Your task to perform on an android device: Clear the cart on ebay. Search for "macbook" on ebay, select the first entry, and add it to the cart. Image 0: 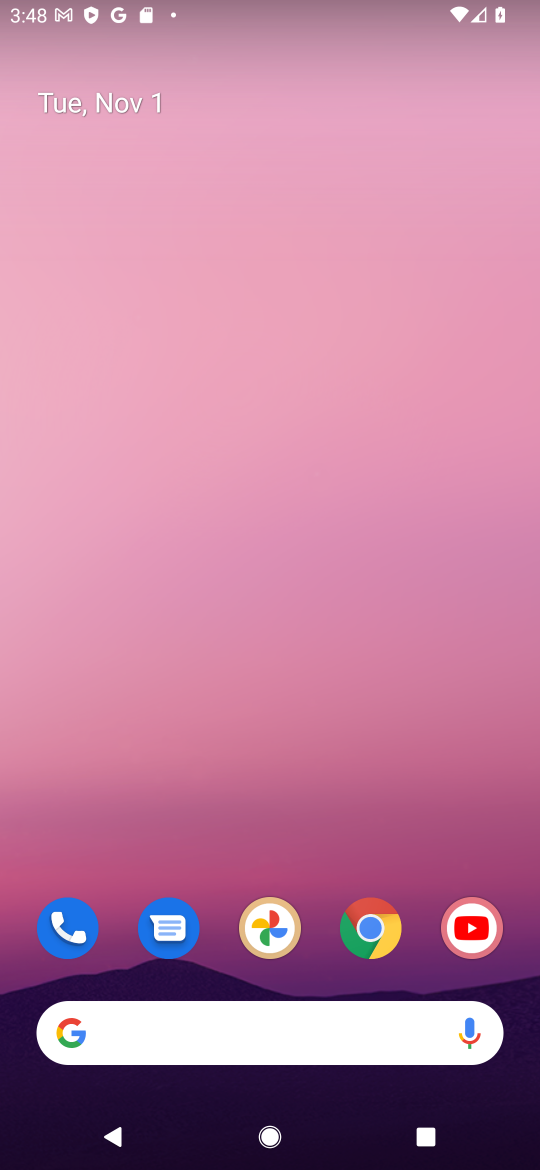
Step 0: click (371, 936)
Your task to perform on an android device: Clear the cart on ebay. Search for "macbook" on ebay, select the first entry, and add it to the cart. Image 1: 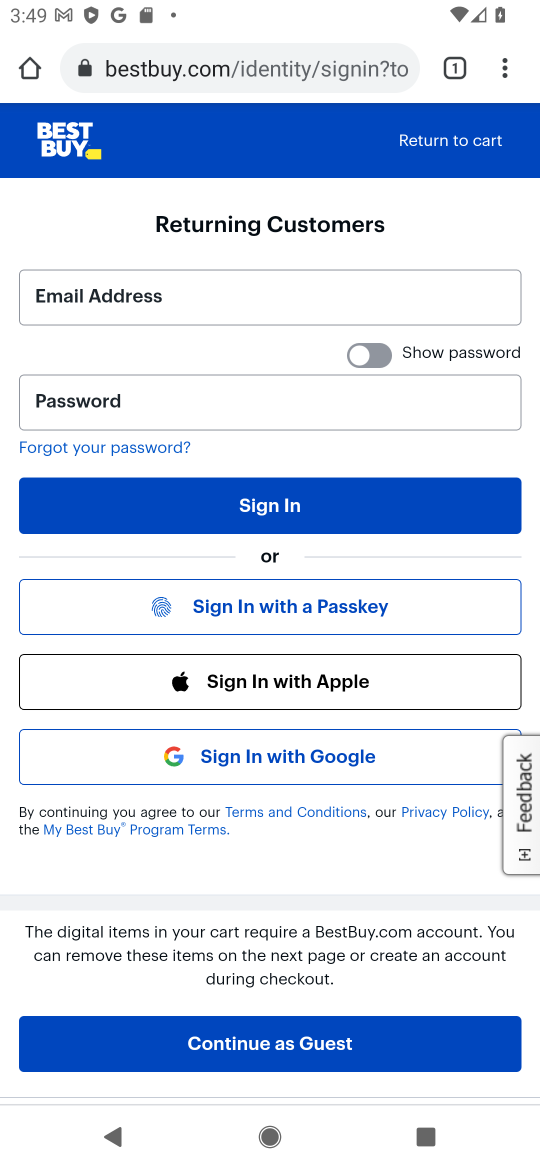
Step 1: click (298, 60)
Your task to perform on an android device: Clear the cart on ebay. Search for "macbook" on ebay, select the first entry, and add it to the cart. Image 2: 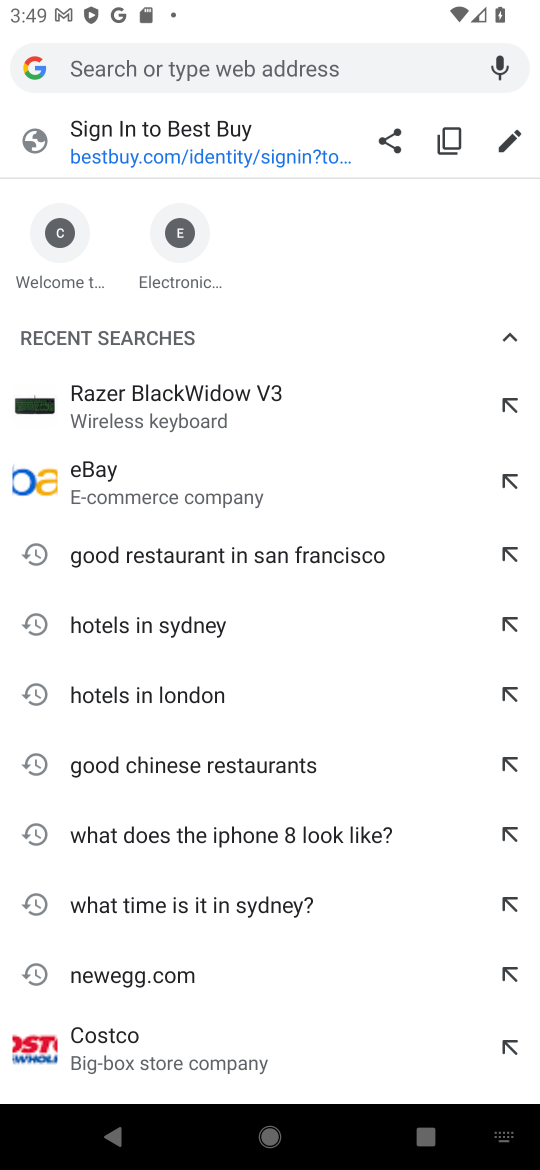
Step 2: type "ebay"
Your task to perform on an android device: Clear the cart on ebay. Search for "macbook" on ebay, select the first entry, and add it to the cart. Image 3: 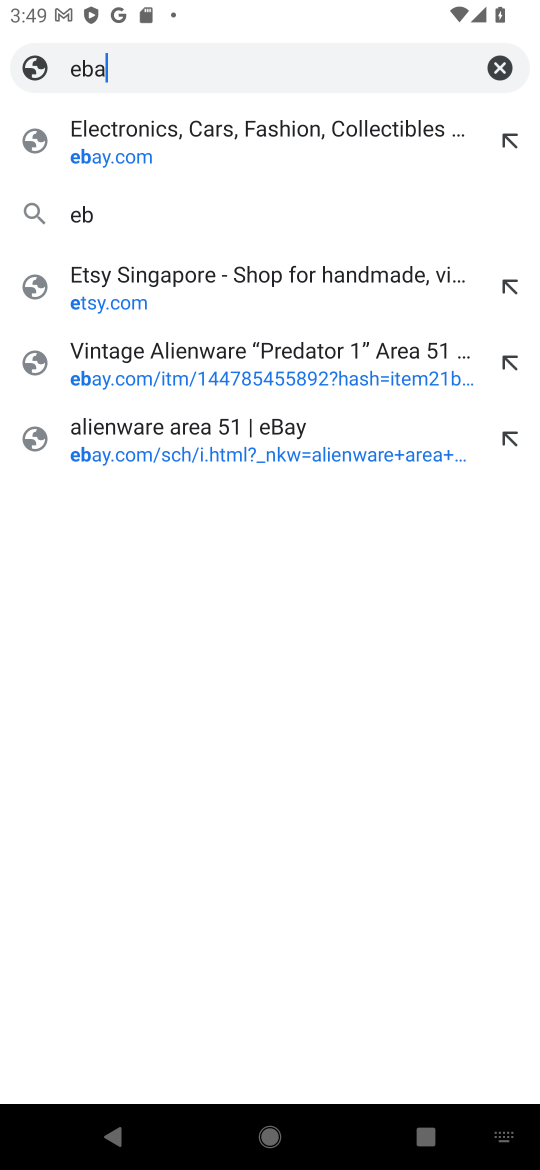
Step 3: type ""
Your task to perform on an android device: Clear the cart on ebay. Search for "macbook" on ebay, select the first entry, and add it to the cart. Image 4: 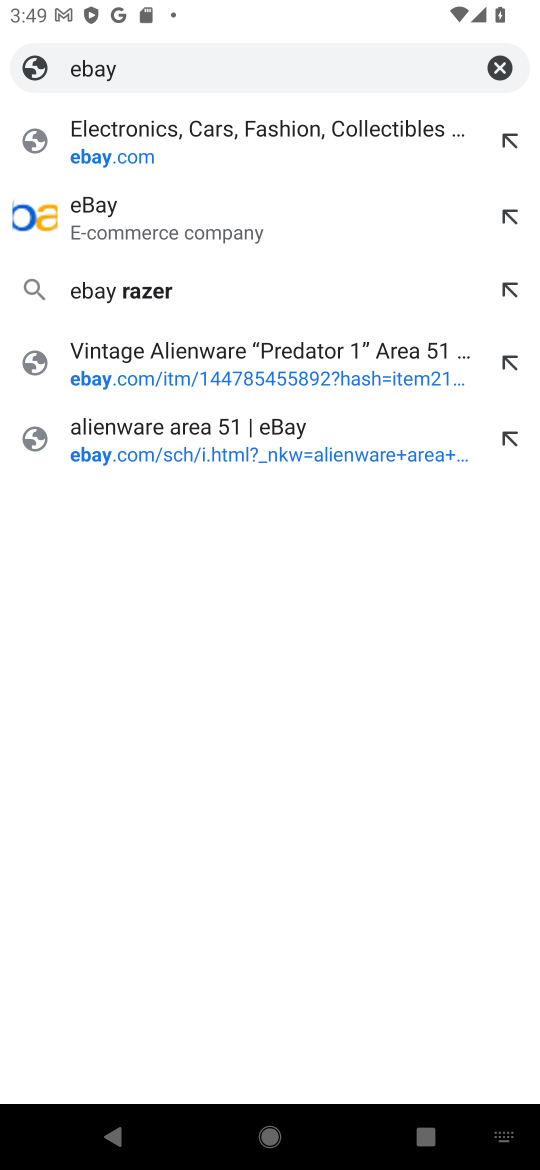
Step 4: press enter
Your task to perform on an android device: Clear the cart on ebay. Search for "macbook" on ebay, select the first entry, and add it to the cart. Image 5: 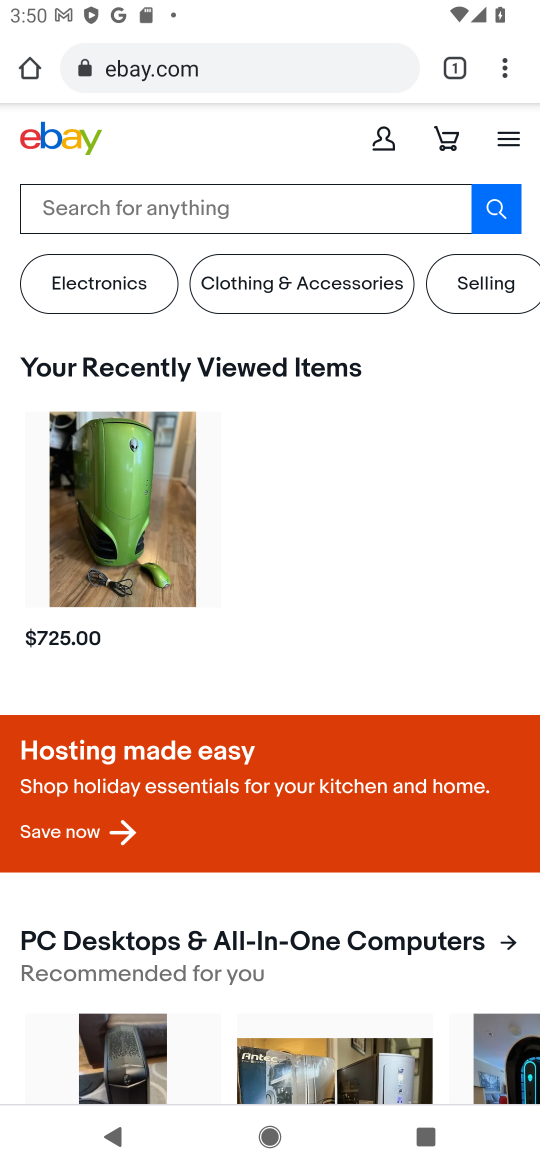
Step 5: click (268, 205)
Your task to perform on an android device: Clear the cart on ebay. Search for "macbook" on ebay, select the first entry, and add it to the cart. Image 6: 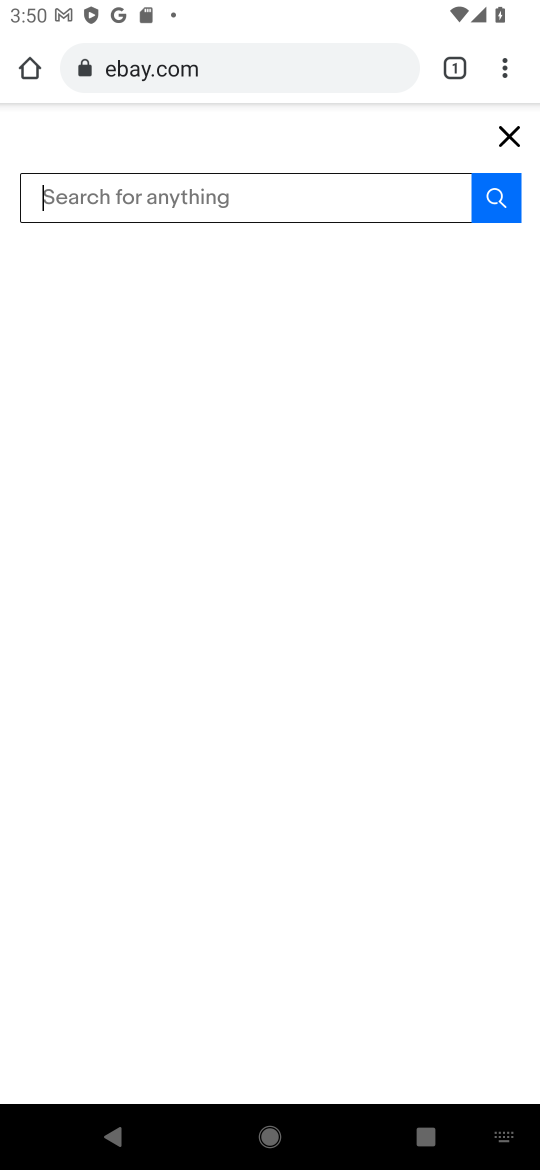
Step 6: click (513, 120)
Your task to perform on an android device: Clear the cart on ebay. Search for "macbook" on ebay, select the first entry, and add it to the cart. Image 7: 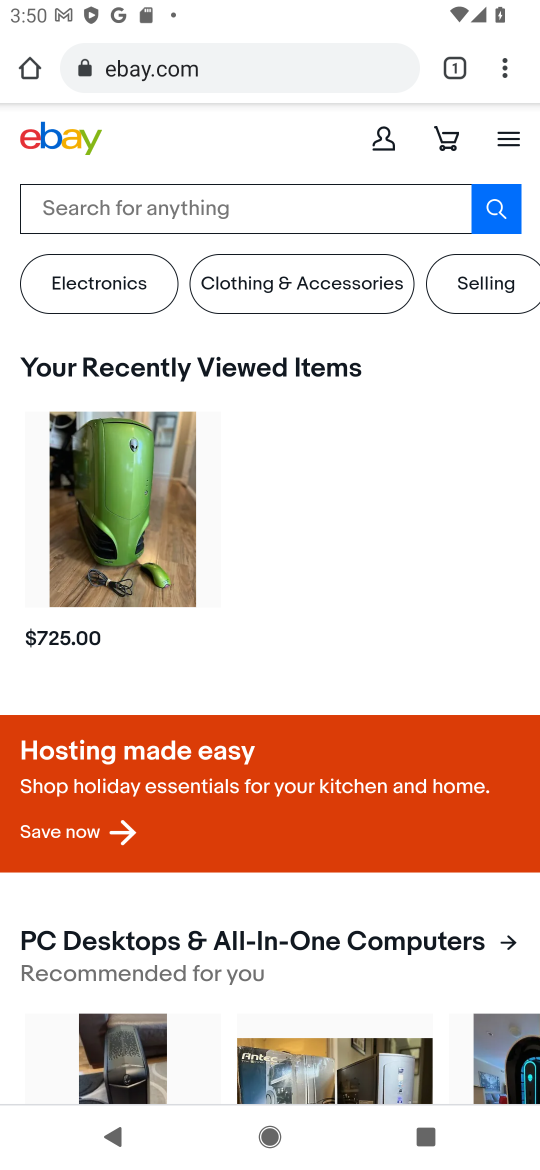
Step 7: click (439, 139)
Your task to perform on an android device: Clear the cart on ebay. Search for "macbook" on ebay, select the first entry, and add it to the cart. Image 8: 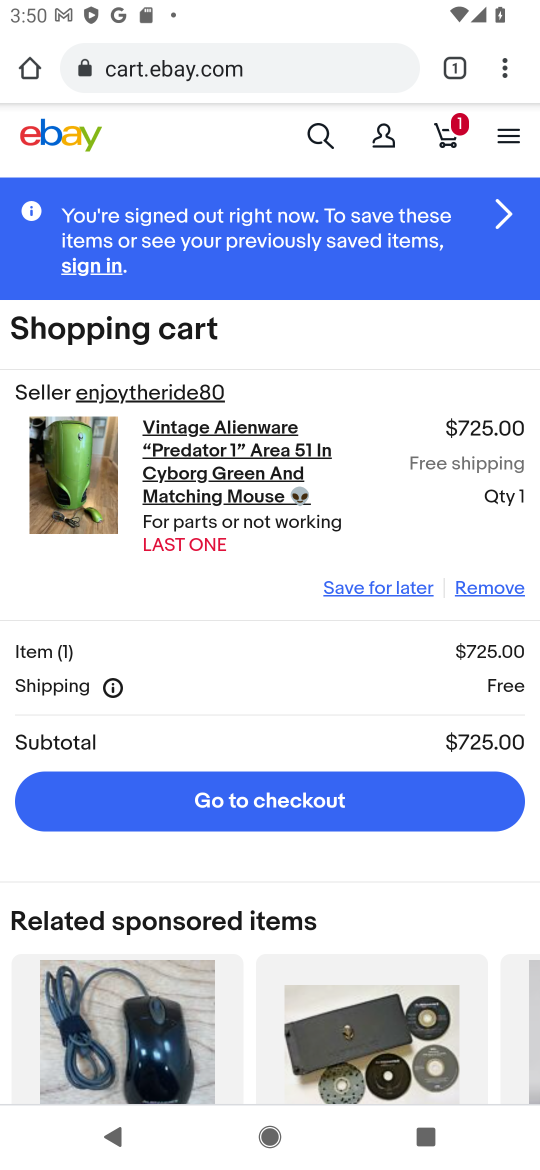
Step 8: click (494, 590)
Your task to perform on an android device: Clear the cart on ebay. Search for "macbook" on ebay, select the first entry, and add it to the cart. Image 9: 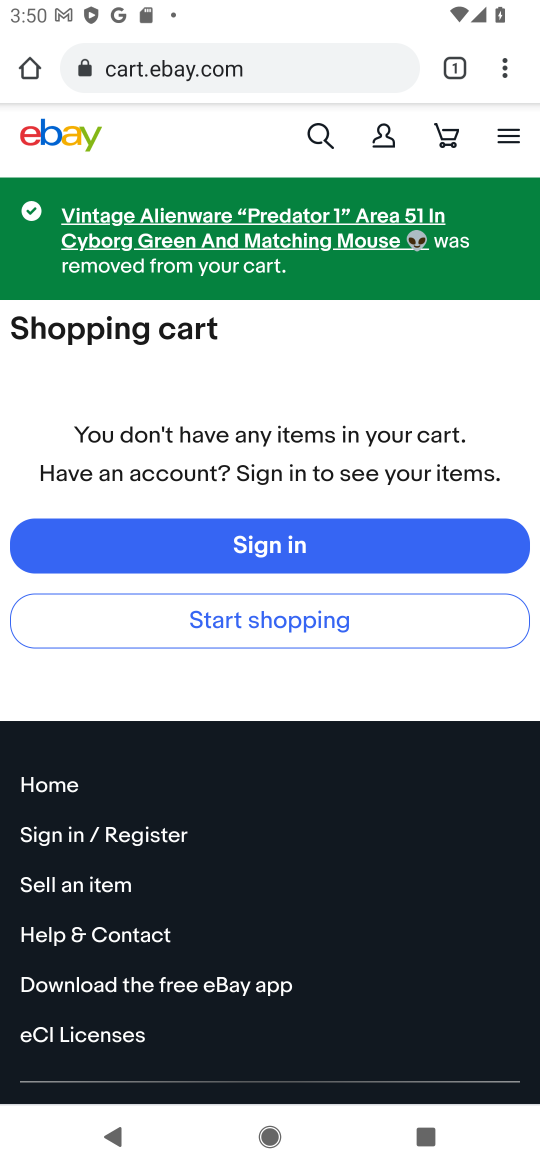
Step 9: click (312, 145)
Your task to perform on an android device: Clear the cart on ebay. Search for "macbook" on ebay, select the first entry, and add it to the cart. Image 10: 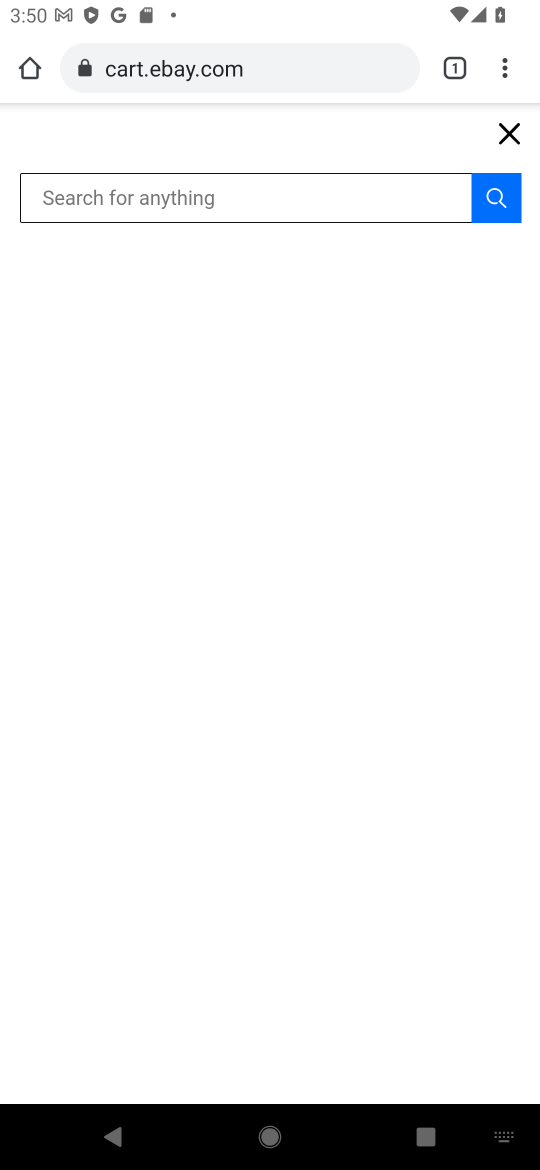
Step 10: type "macbook"
Your task to perform on an android device: Clear the cart on ebay. Search for "macbook" on ebay, select the first entry, and add it to the cart. Image 11: 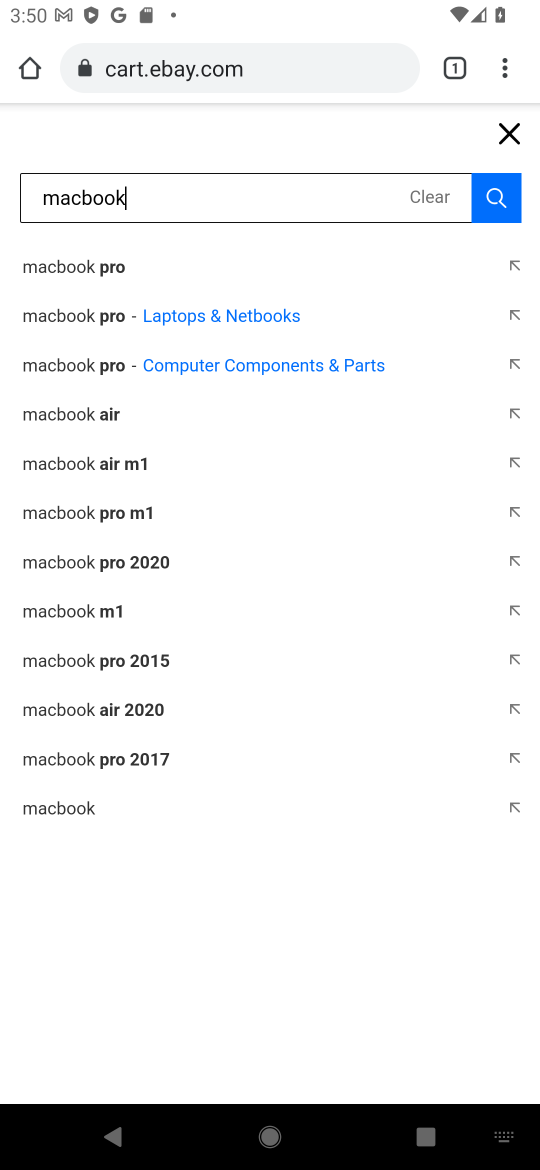
Step 11: click (498, 191)
Your task to perform on an android device: Clear the cart on ebay. Search for "macbook" on ebay, select the first entry, and add it to the cart. Image 12: 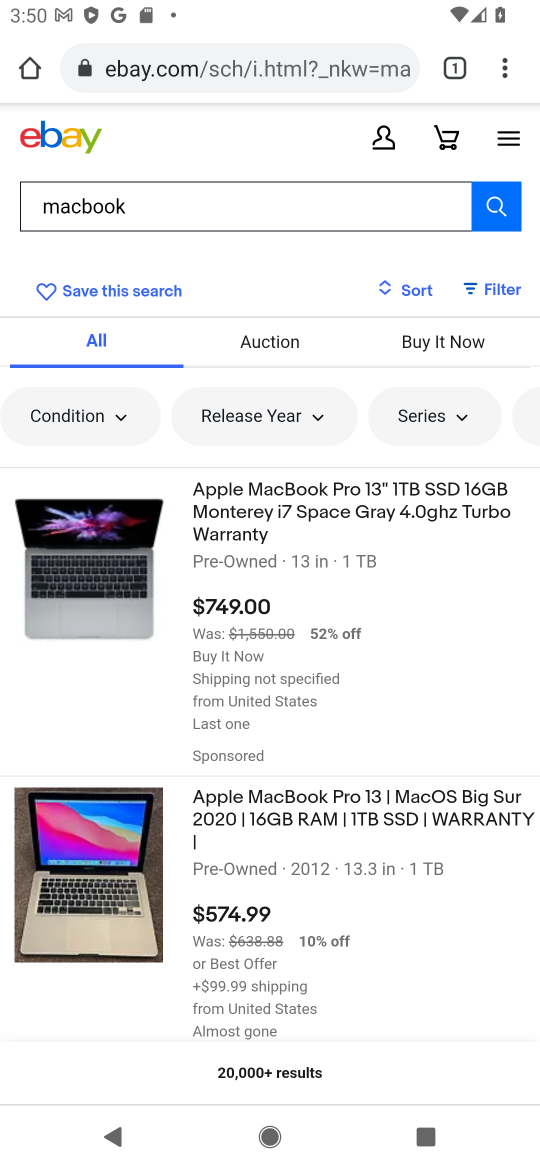
Step 12: click (304, 508)
Your task to perform on an android device: Clear the cart on ebay. Search for "macbook" on ebay, select the first entry, and add it to the cart. Image 13: 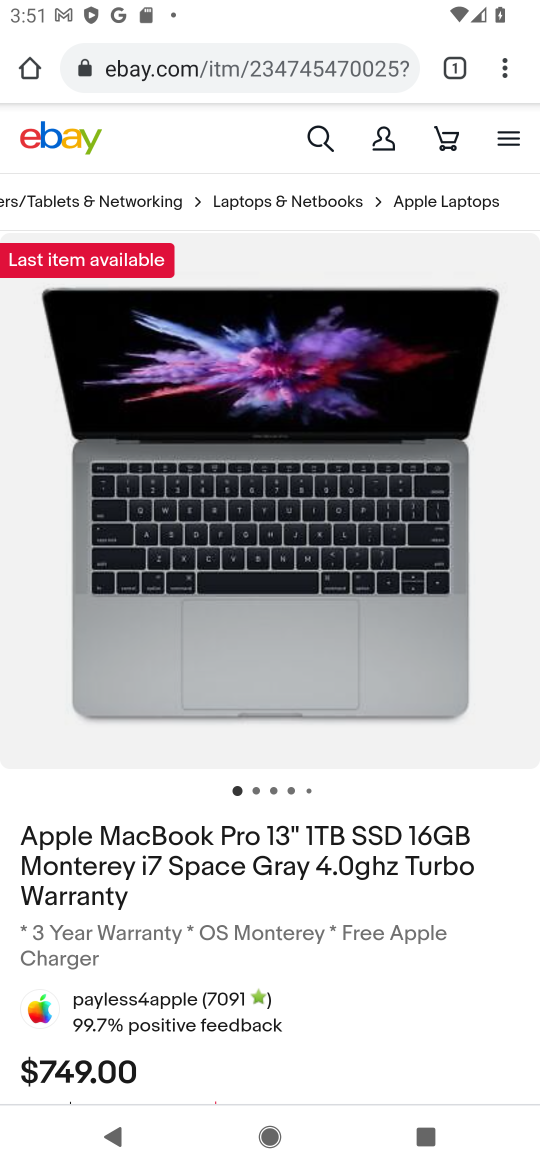
Step 13: drag from (324, 1001) to (368, 320)
Your task to perform on an android device: Clear the cart on ebay. Search for "macbook" on ebay, select the first entry, and add it to the cart. Image 14: 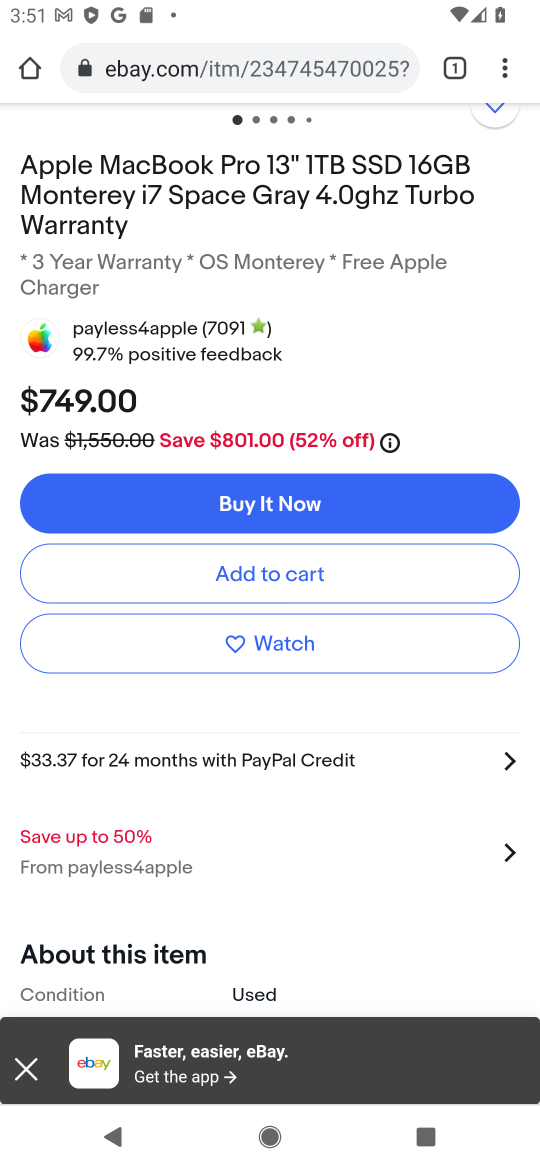
Step 14: click (339, 586)
Your task to perform on an android device: Clear the cart on ebay. Search for "macbook" on ebay, select the first entry, and add it to the cart. Image 15: 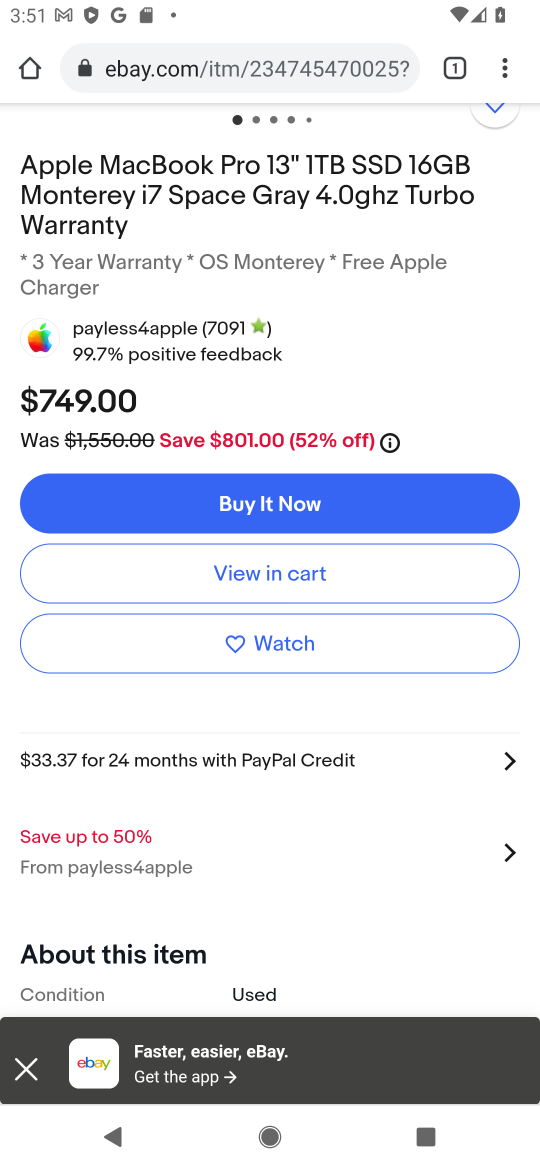
Step 15: click (338, 573)
Your task to perform on an android device: Clear the cart on ebay. Search for "macbook" on ebay, select the first entry, and add it to the cart. Image 16: 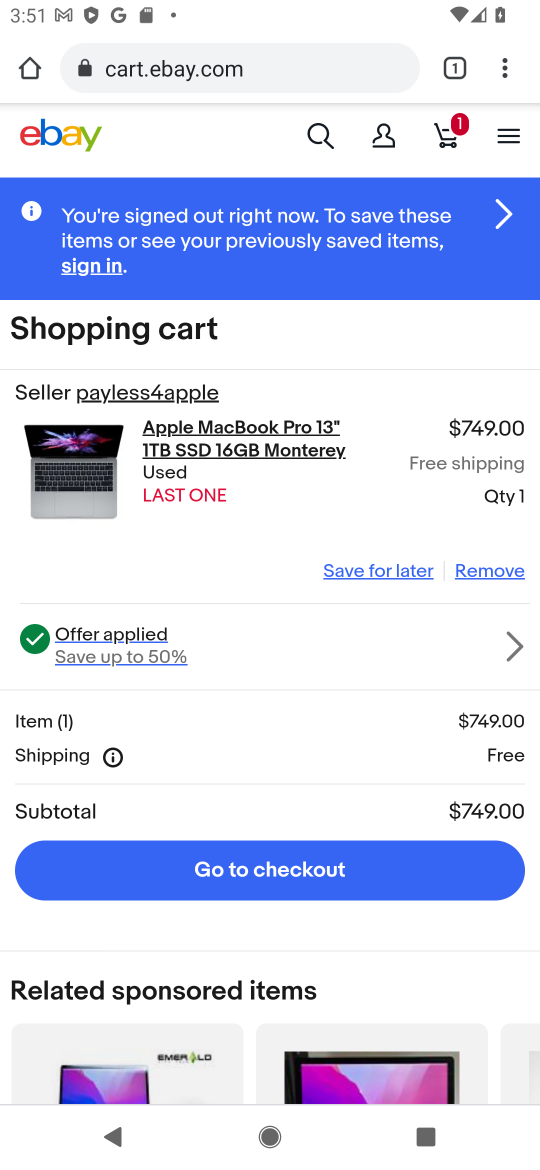
Step 16: task complete